Your task to perform on an android device: Open privacy settings Image 0: 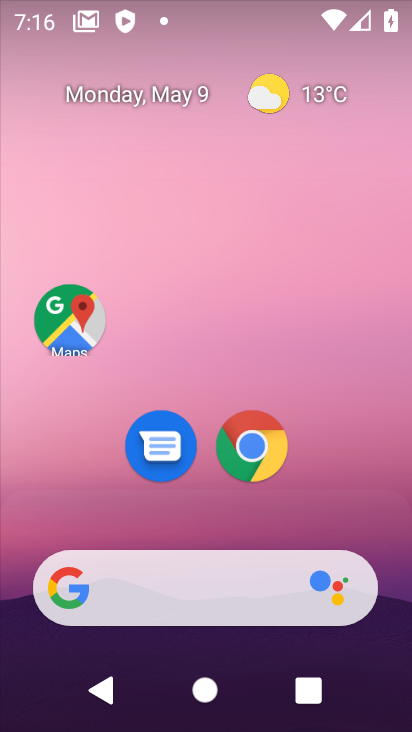
Step 0: drag from (332, 471) to (340, 144)
Your task to perform on an android device: Open privacy settings Image 1: 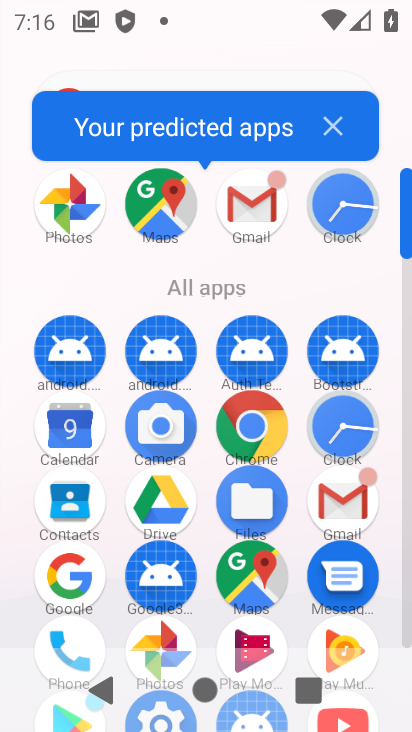
Step 1: drag from (294, 594) to (316, 237)
Your task to perform on an android device: Open privacy settings Image 2: 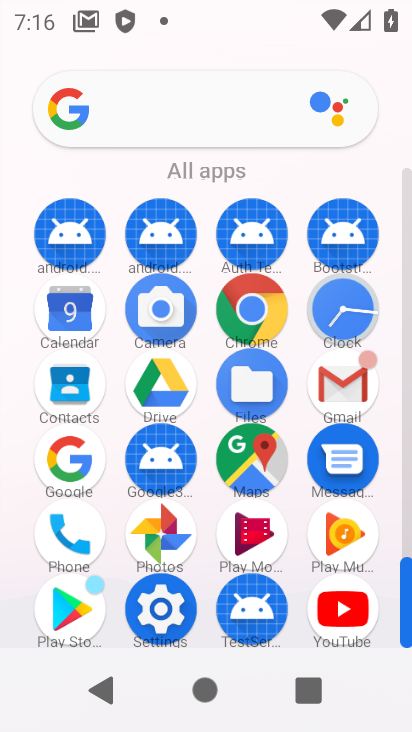
Step 2: click (166, 603)
Your task to perform on an android device: Open privacy settings Image 3: 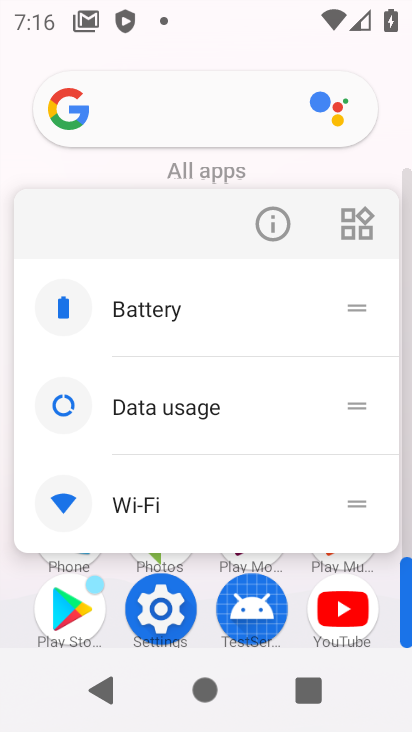
Step 3: click (156, 617)
Your task to perform on an android device: Open privacy settings Image 4: 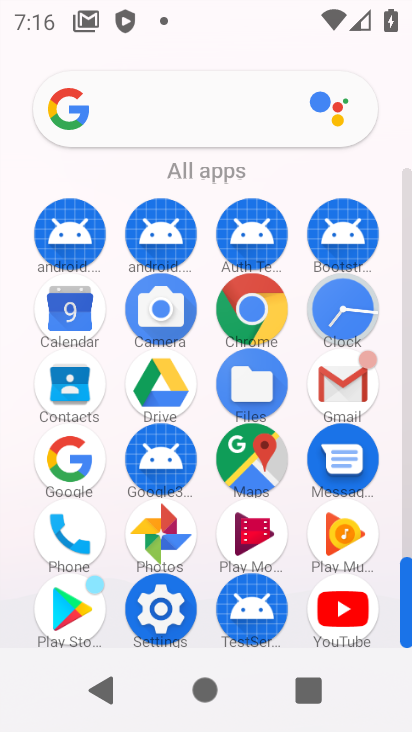
Step 4: click (159, 627)
Your task to perform on an android device: Open privacy settings Image 5: 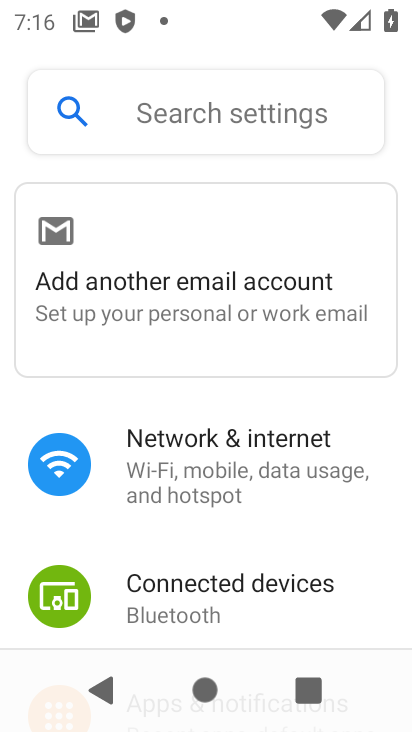
Step 5: drag from (236, 533) to (277, 251)
Your task to perform on an android device: Open privacy settings Image 6: 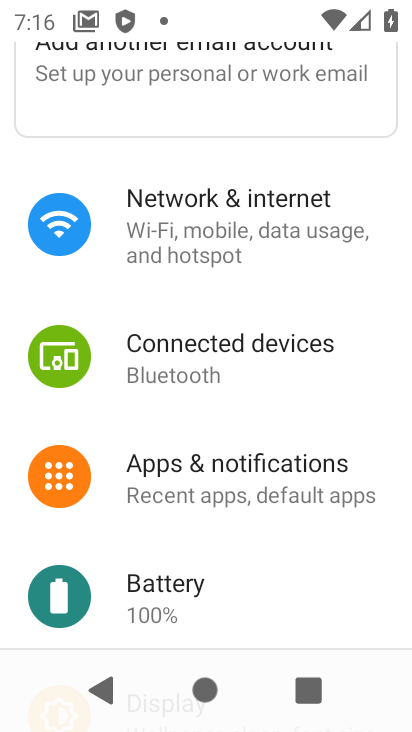
Step 6: drag from (200, 591) to (224, 276)
Your task to perform on an android device: Open privacy settings Image 7: 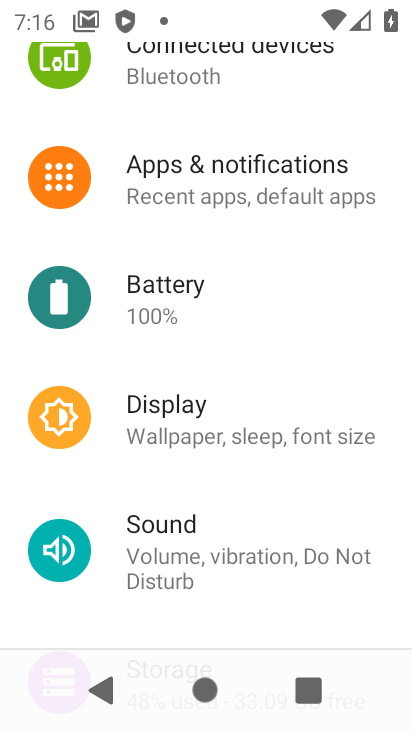
Step 7: drag from (227, 563) to (240, 218)
Your task to perform on an android device: Open privacy settings Image 8: 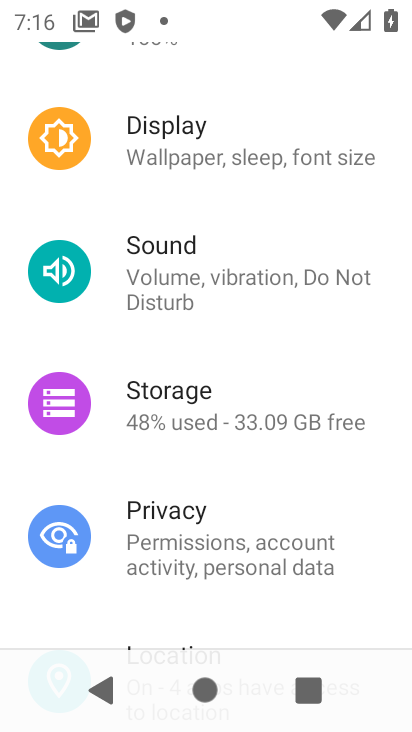
Step 8: click (189, 559)
Your task to perform on an android device: Open privacy settings Image 9: 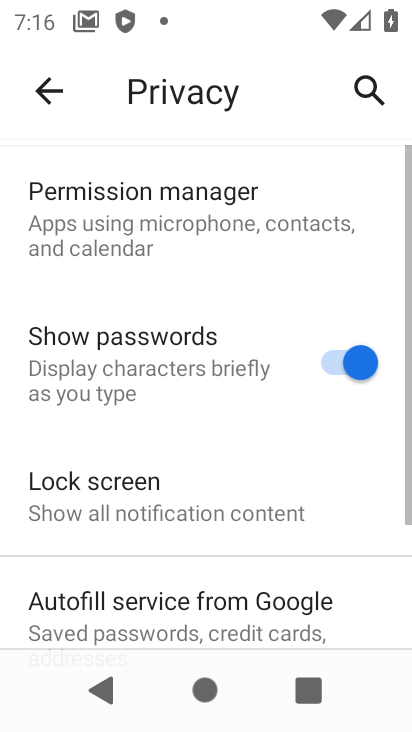
Step 9: task complete